Your task to perform on an android device: Go to Google Image 0: 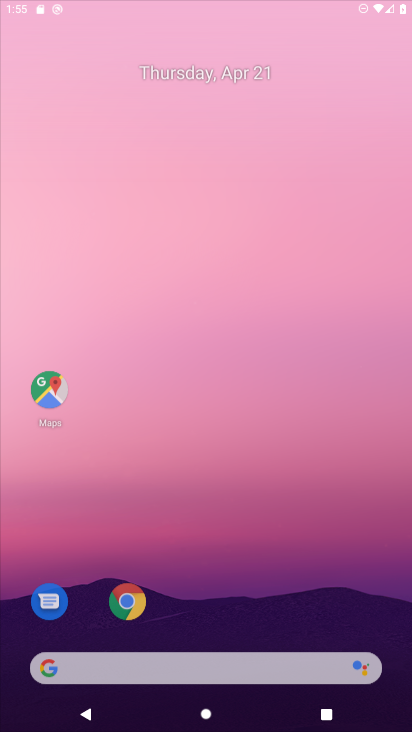
Step 0: drag from (368, 86) to (340, 111)
Your task to perform on an android device: Go to Google Image 1: 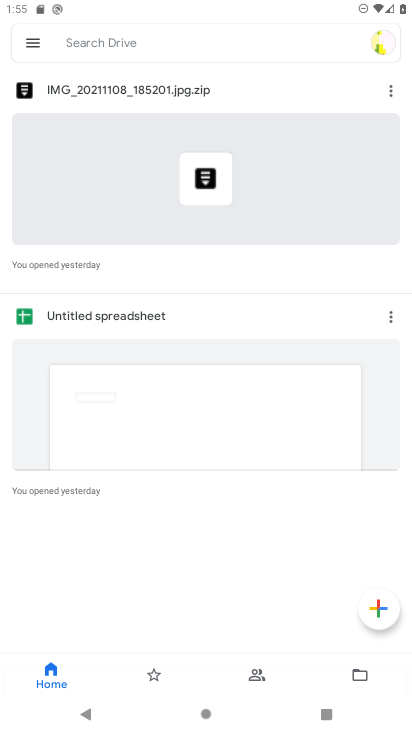
Step 1: press home button
Your task to perform on an android device: Go to Google Image 2: 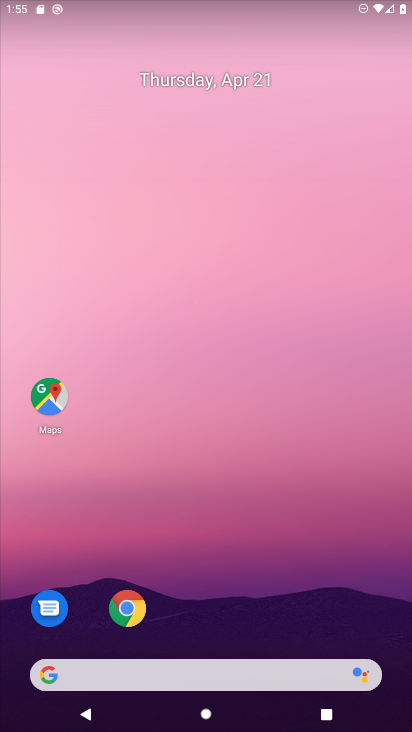
Step 2: drag from (251, 541) to (264, 166)
Your task to perform on an android device: Go to Google Image 3: 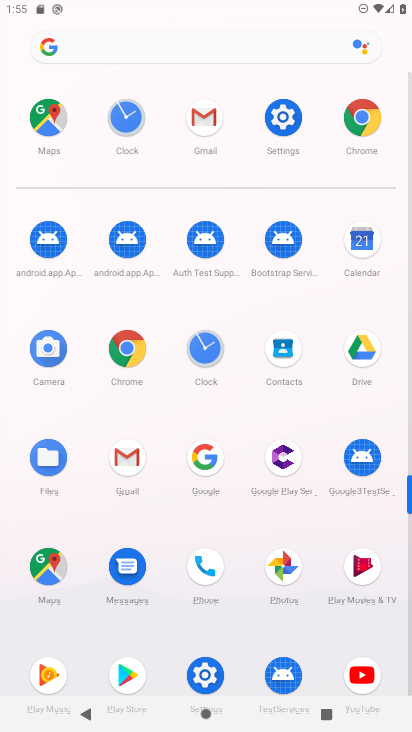
Step 3: click (211, 458)
Your task to perform on an android device: Go to Google Image 4: 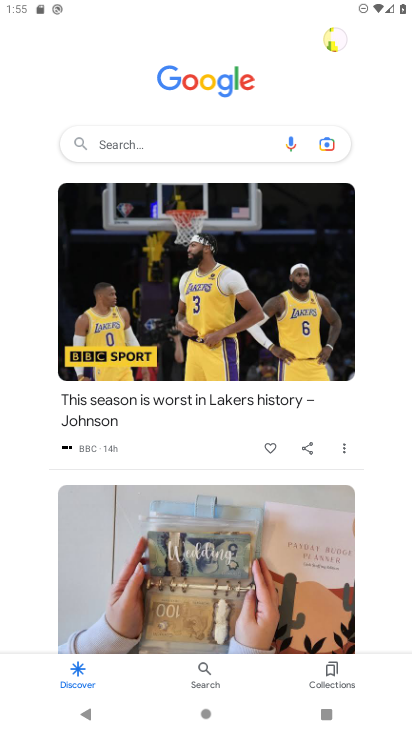
Step 4: task complete